Your task to perform on an android device: uninstall "Spotify: Music and Podcasts" Image 0: 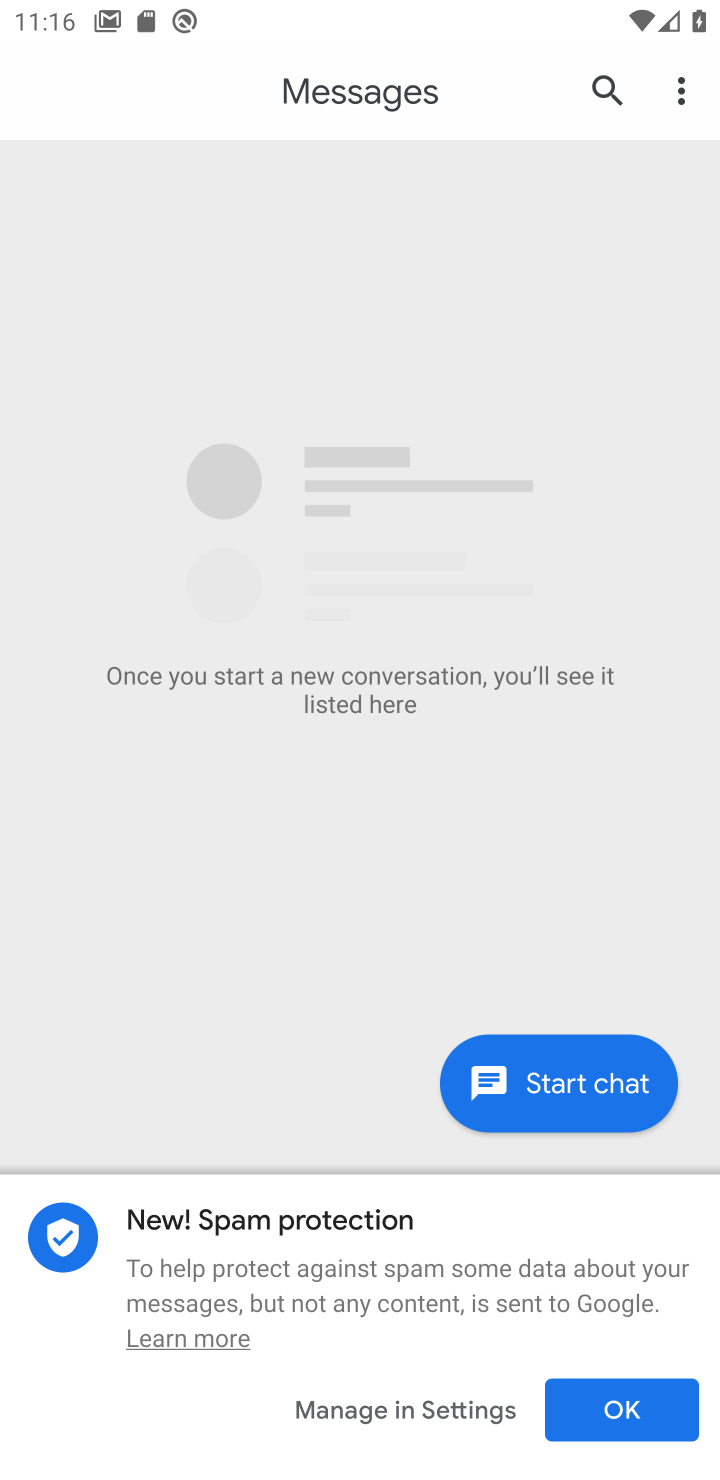
Step 0: press home button
Your task to perform on an android device: uninstall "Spotify: Music and Podcasts" Image 1: 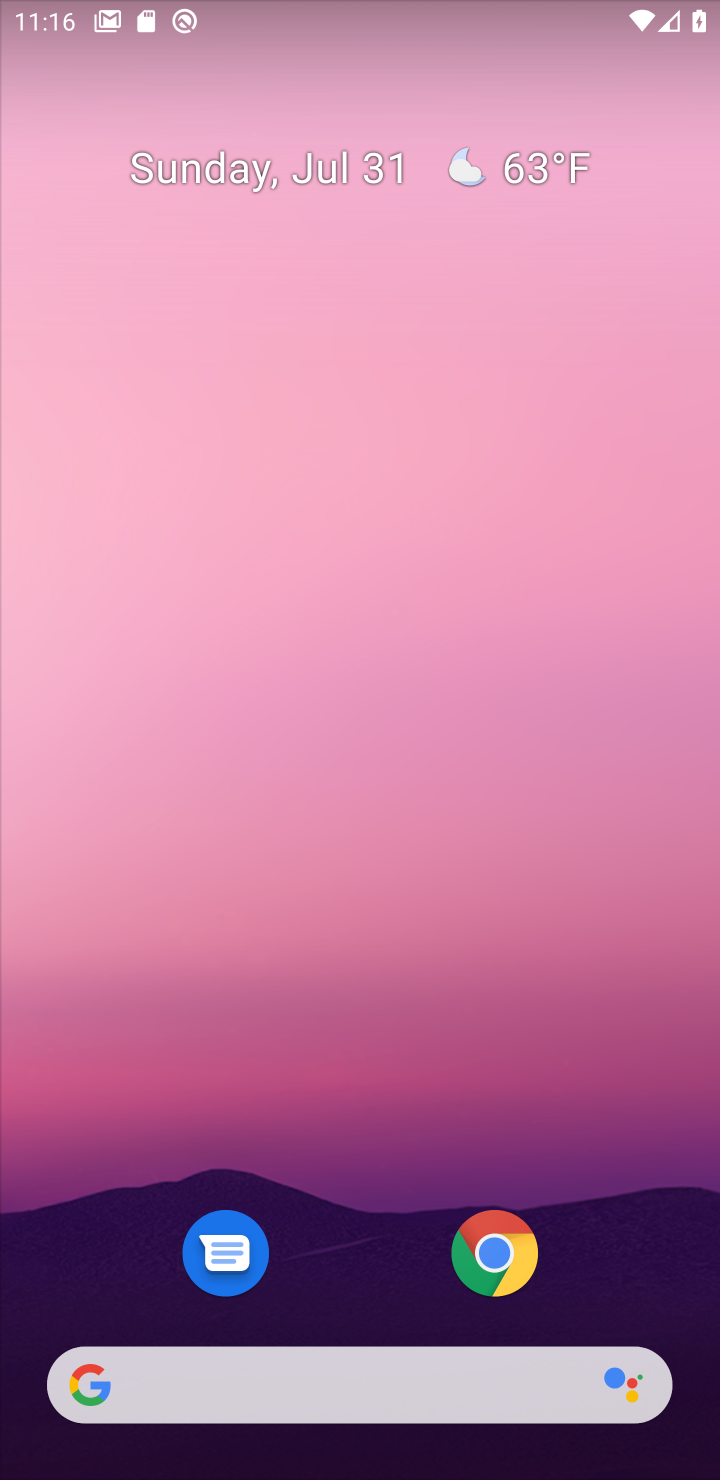
Step 1: drag from (533, 872) to (490, 125)
Your task to perform on an android device: uninstall "Spotify: Music and Podcasts" Image 2: 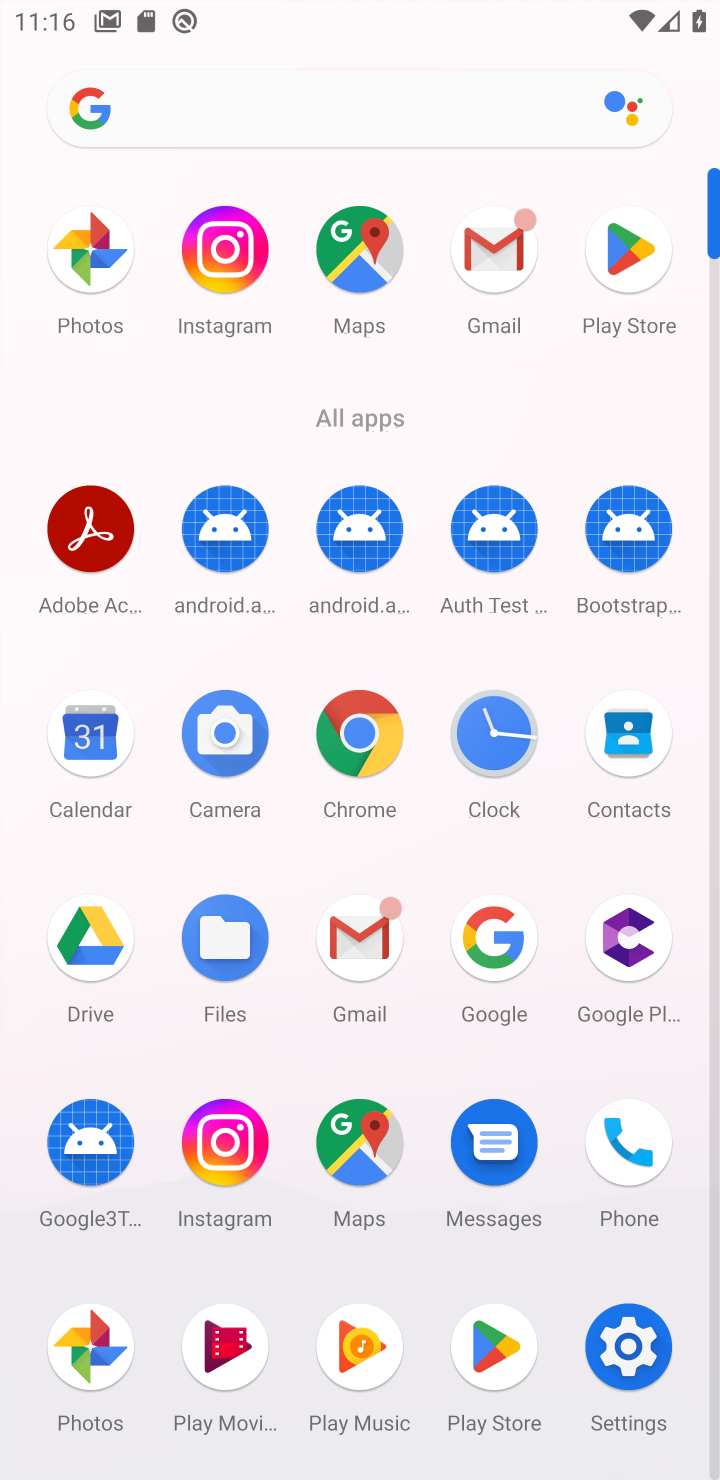
Step 2: click (629, 246)
Your task to perform on an android device: uninstall "Spotify: Music and Podcasts" Image 3: 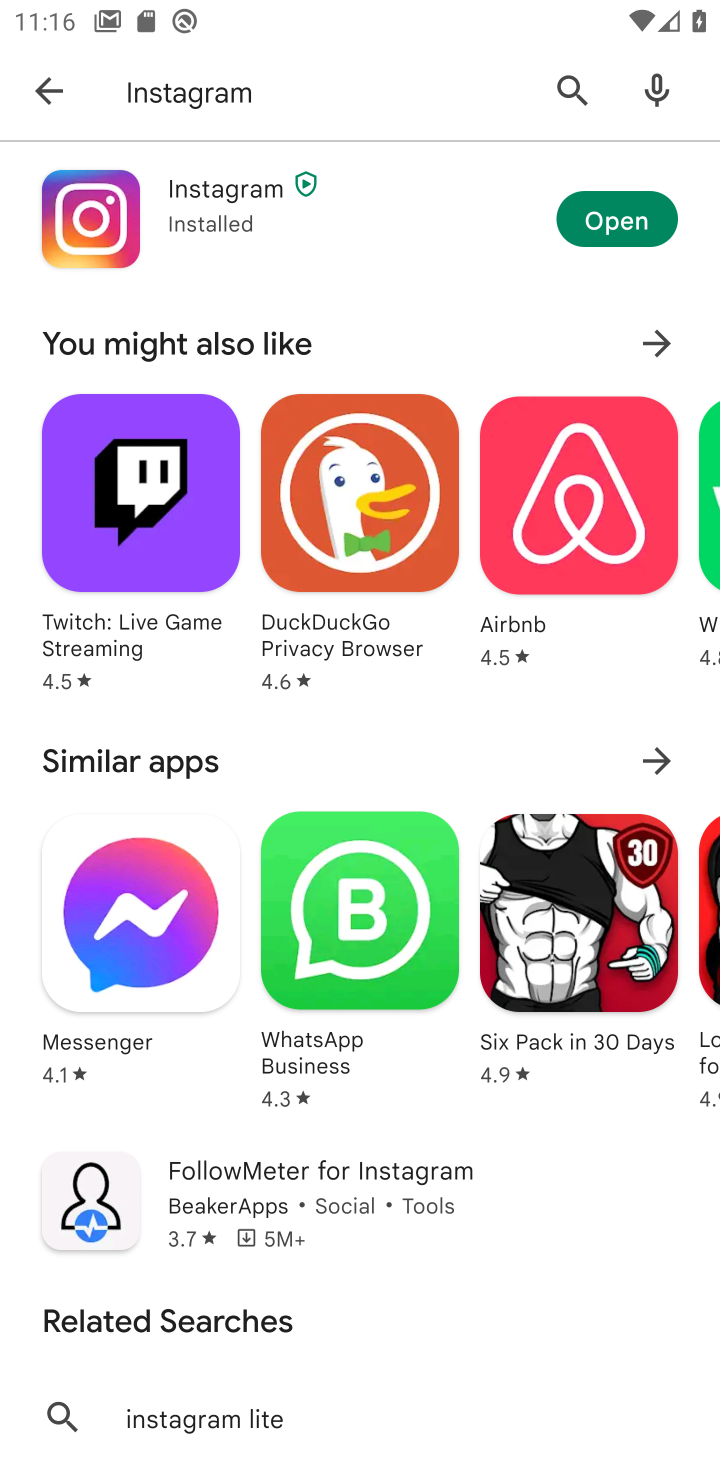
Step 3: click (424, 119)
Your task to perform on an android device: uninstall "Spotify: Music and Podcasts" Image 4: 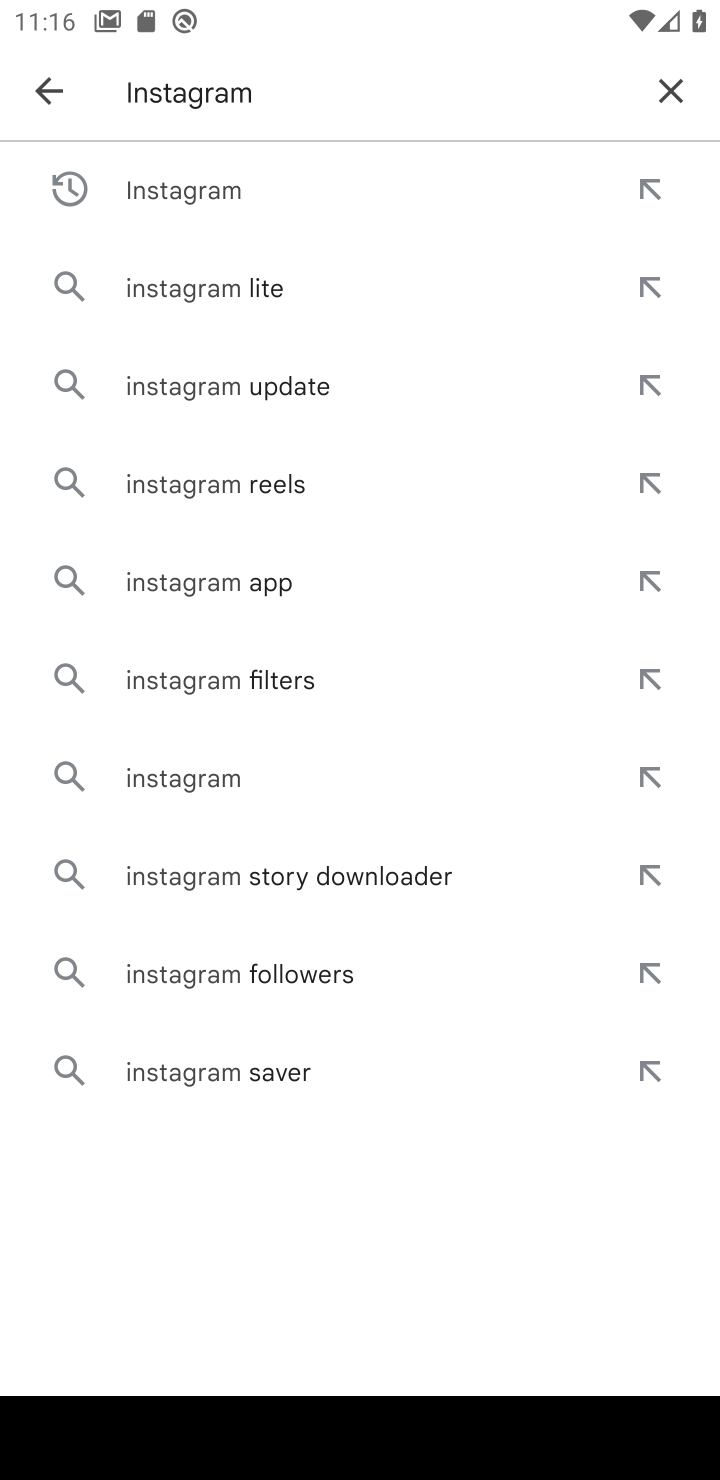
Step 4: click (677, 96)
Your task to perform on an android device: uninstall "Spotify: Music and Podcasts" Image 5: 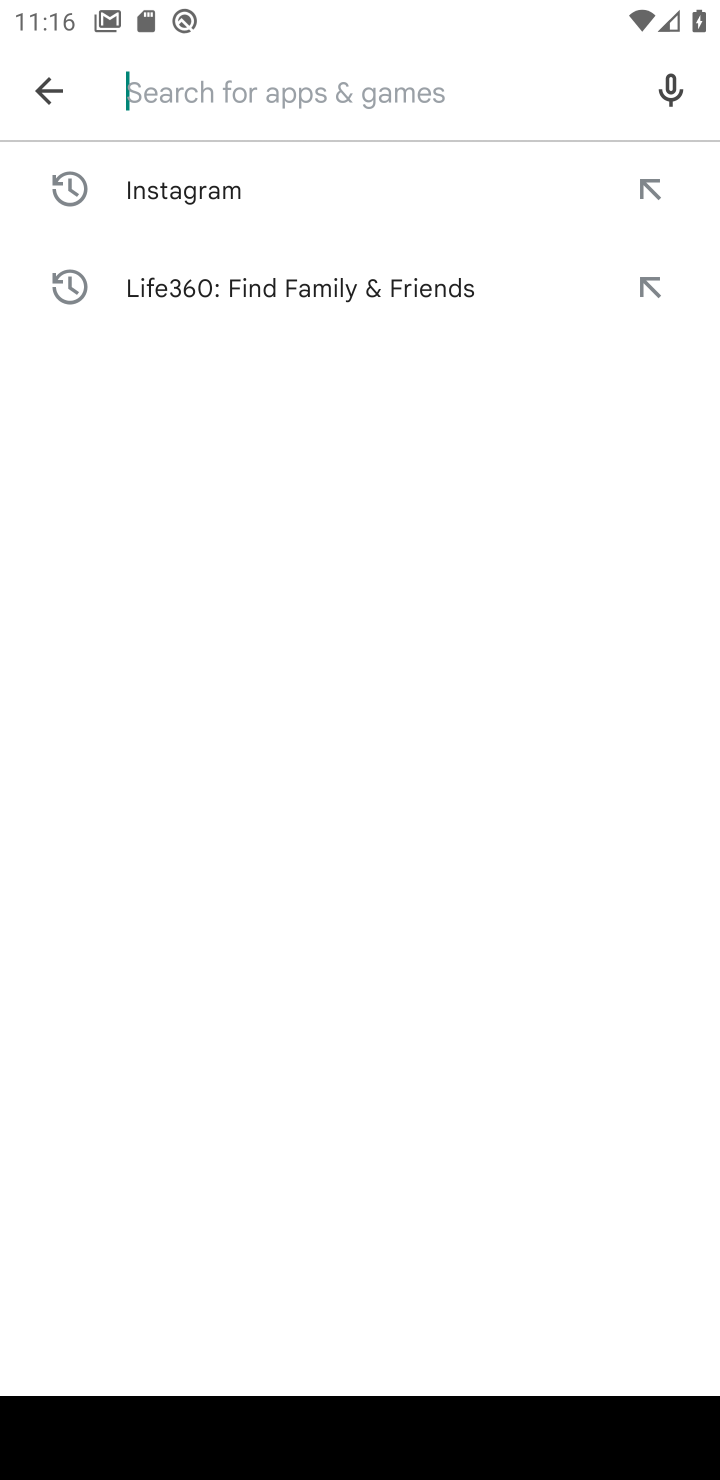
Step 5: type "Spotify: Music and Podcasts"
Your task to perform on an android device: uninstall "Spotify: Music and Podcasts" Image 6: 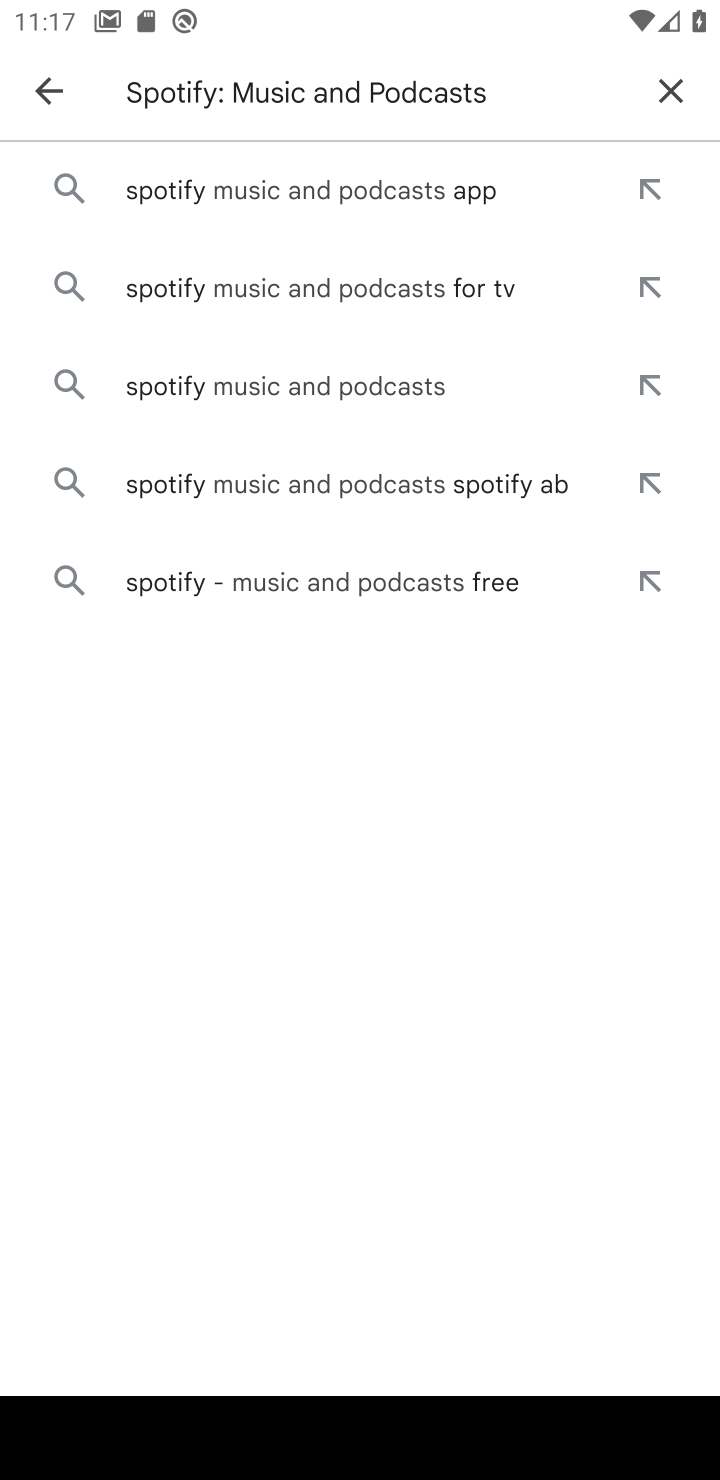
Step 6: press enter
Your task to perform on an android device: uninstall "Spotify: Music and Podcasts" Image 7: 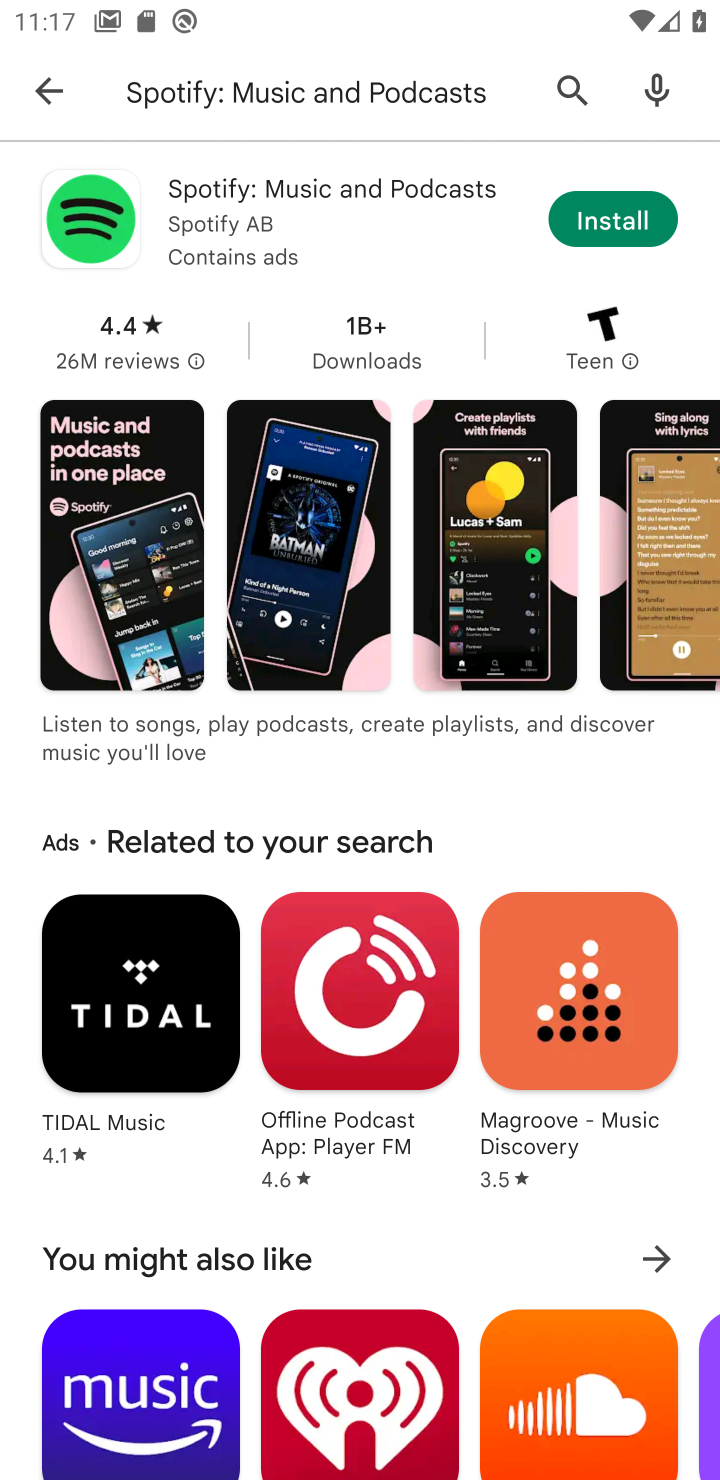
Step 7: click (368, 179)
Your task to perform on an android device: uninstall "Spotify: Music and Podcasts" Image 8: 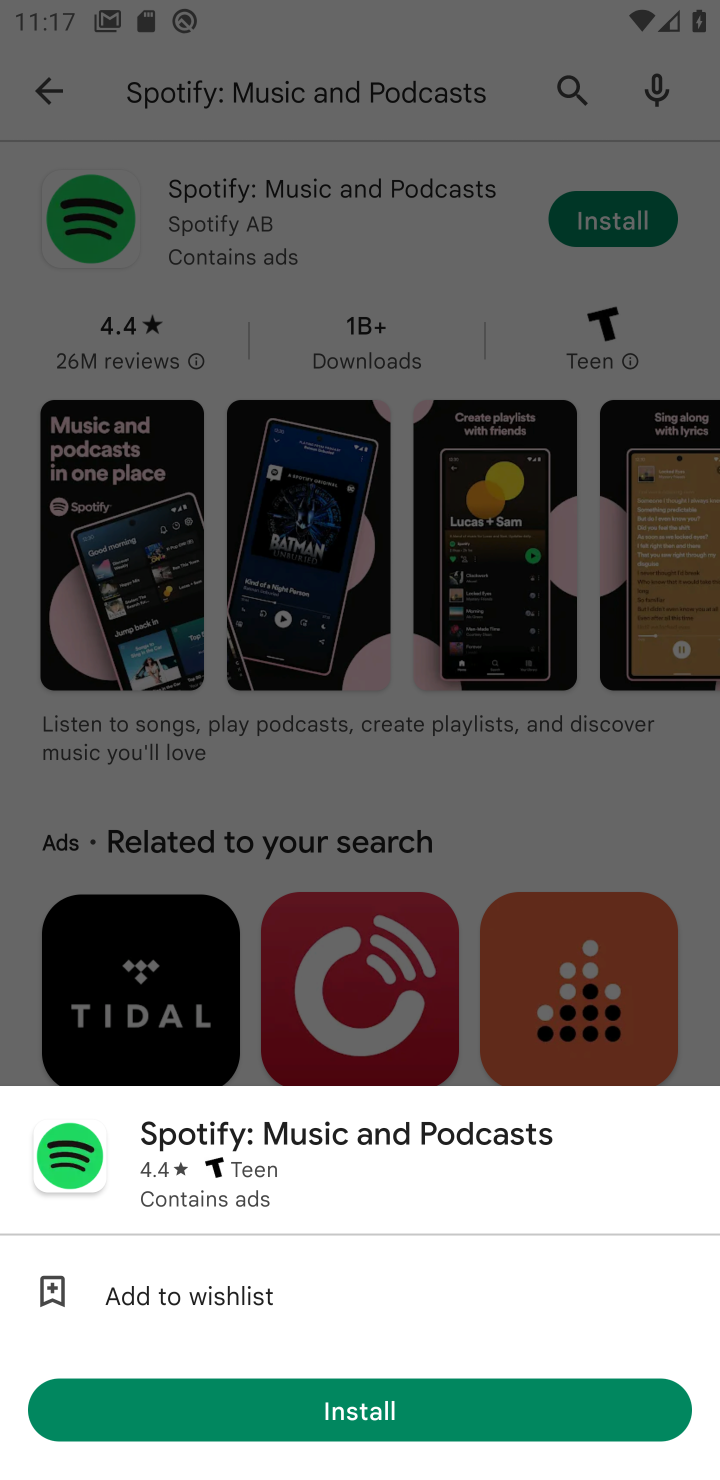
Step 8: click (445, 242)
Your task to perform on an android device: uninstall "Spotify: Music and Podcasts" Image 9: 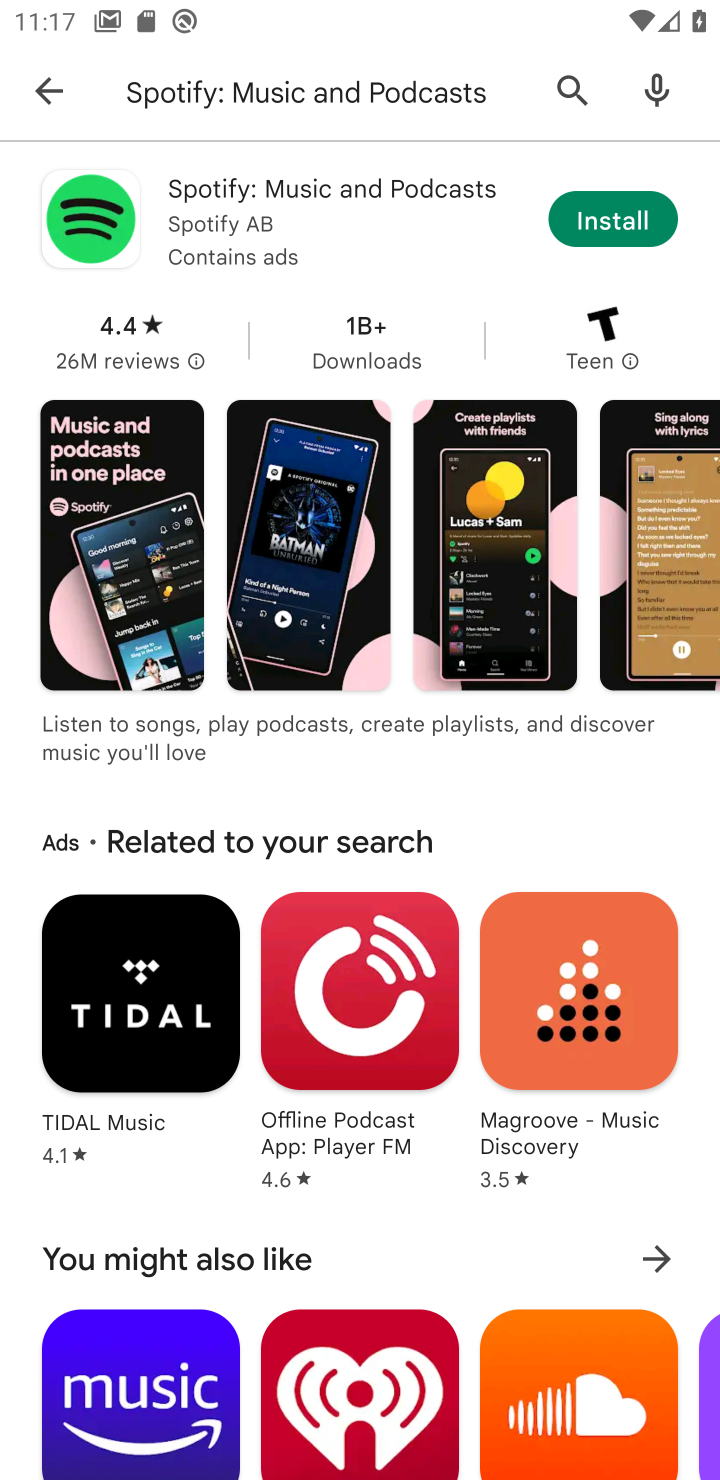
Step 9: task complete